Your task to perform on an android device: toggle translation in the chrome app Image 0: 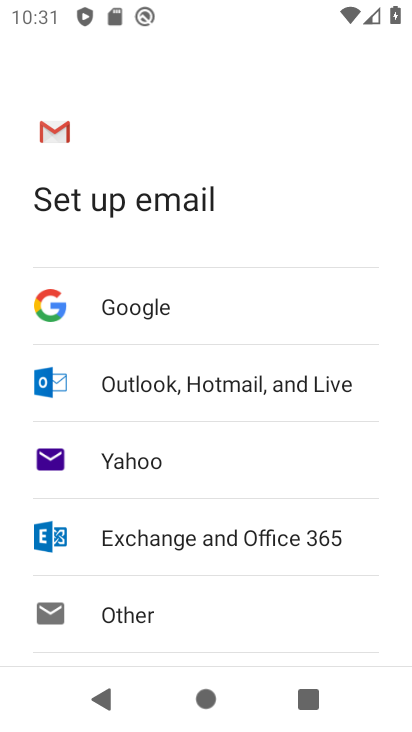
Step 0: press home button
Your task to perform on an android device: toggle translation in the chrome app Image 1: 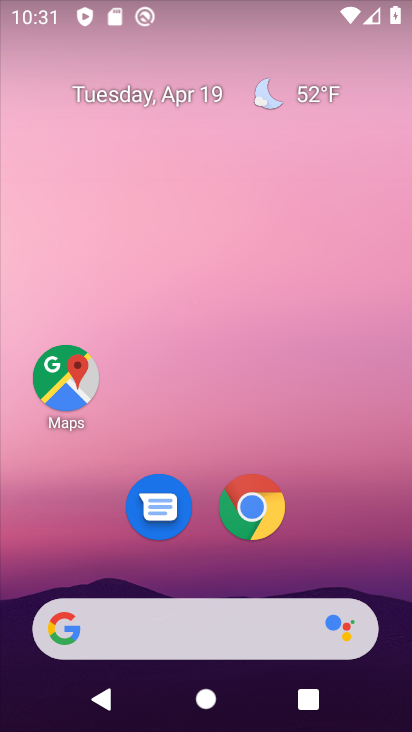
Step 1: drag from (353, 536) to (364, 71)
Your task to perform on an android device: toggle translation in the chrome app Image 2: 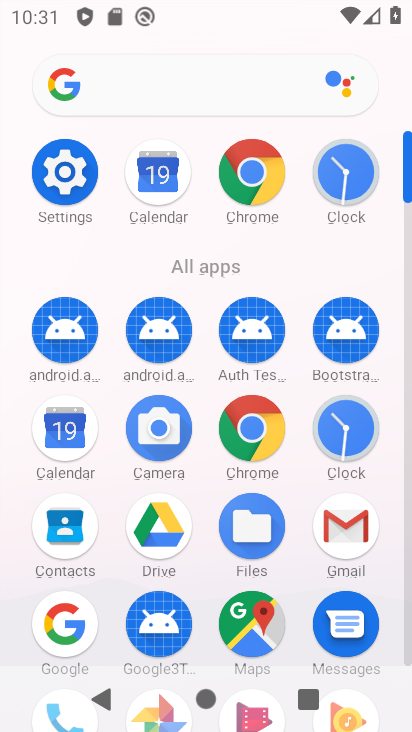
Step 2: click (263, 425)
Your task to perform on an android device: toggle translation in the chrome app Image 3: 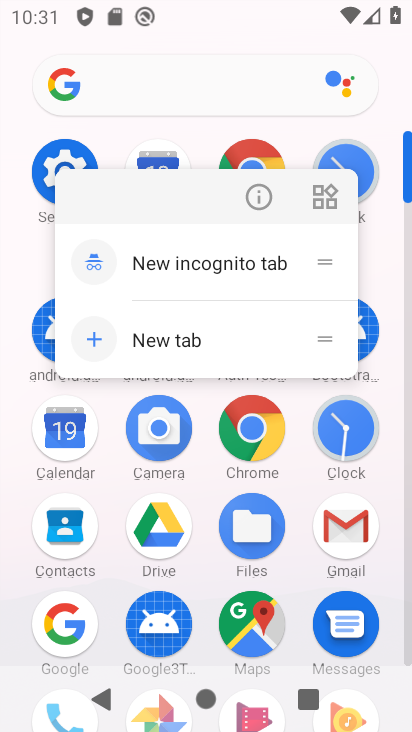
Step 3: click (263, 426)
Your task to perform on an android device: toggle translation in the chrome app Image 4: 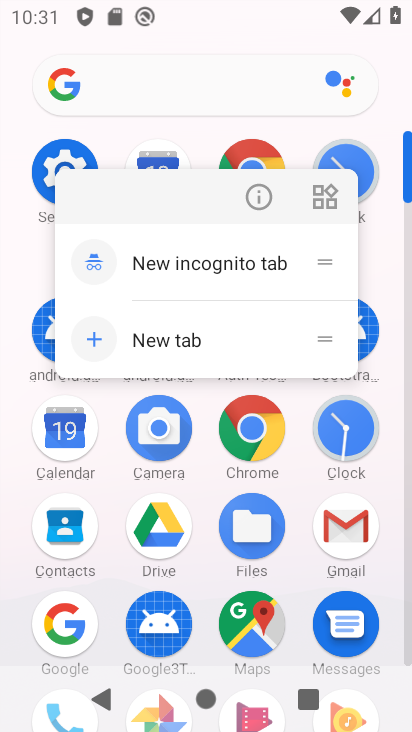
Step 4: click (268, 424)
Your task to perform on an android device: toggle translation in the chrome app Image 5: 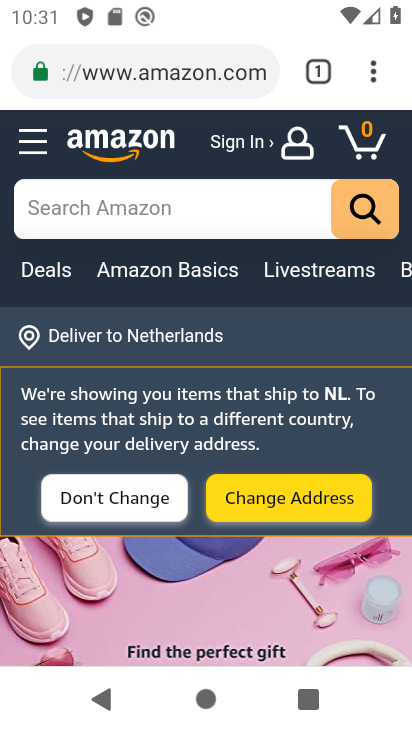
Step 5: click (373, 72)
Your task to perform on an android device: toggle translation in the chrome app Image 6: 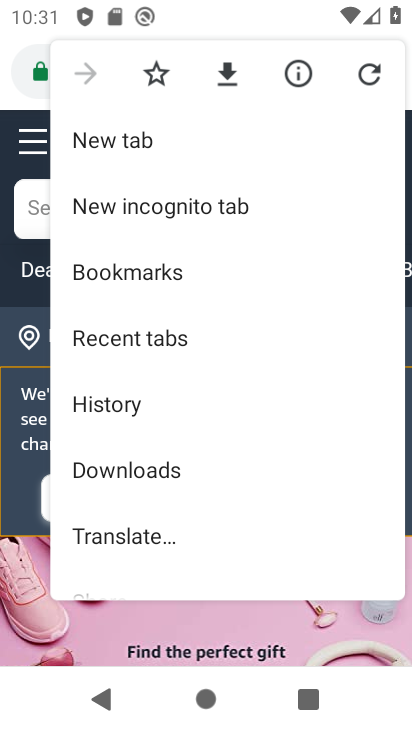
Step 6: drag from (314, 466) to (324, 269)
Your task to perform on an android device: toggle translation in the chrome app Image 7: 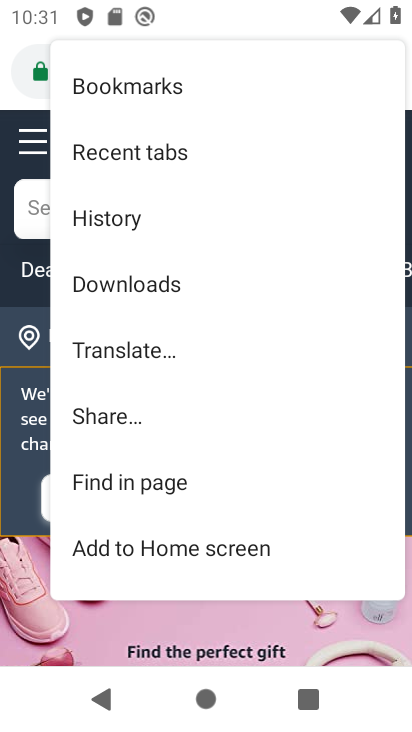
Step 7: drag from (296, 460) to (305, 225)
Your task to perform on an android device: toggle translation in the chrome app Image 8: 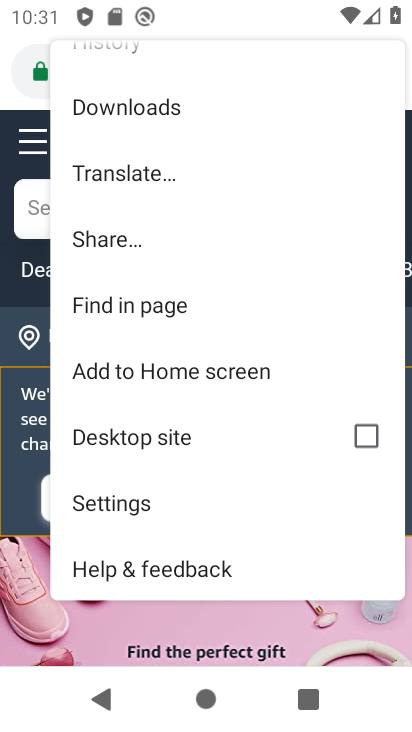
Step 8: click (136, 505)
Your task to perform on an android device: toggle translation in the chrome app Image 9: 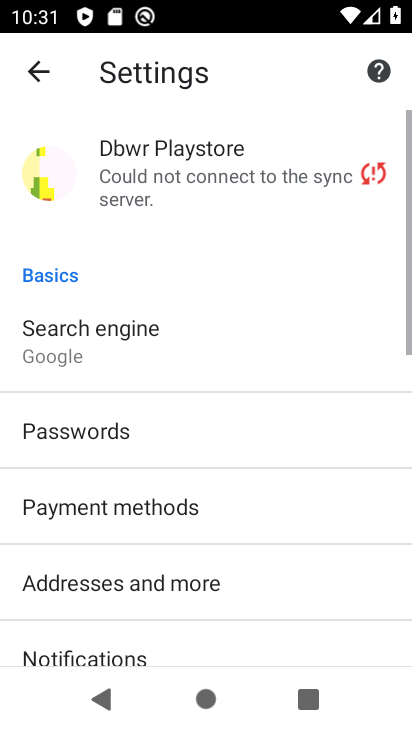
Step 9: drag from (323, 528) to (329, 347)
Your task to perform on an android device: toggle translation in the chrome app Image 10: 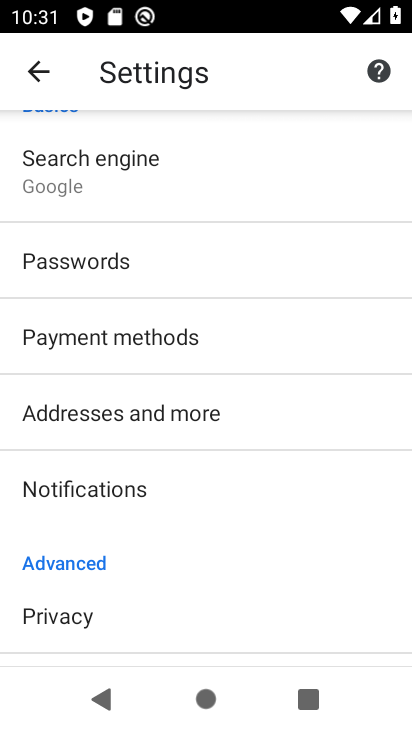
Step 10: drag from (317, 561) to (327, 373)
Your task to perform on an android device: toggle translation in the chrome app Image 11: 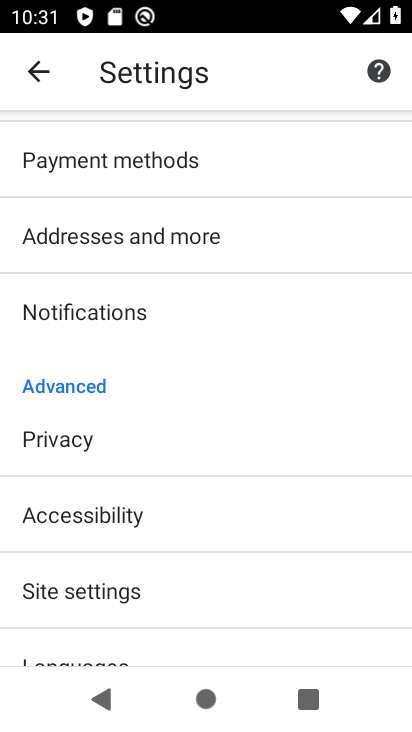
Step 11: drag from (304, 563) to (313, 351)
Your task to perform on an android device: toggle translation in the chrome app Image 12: 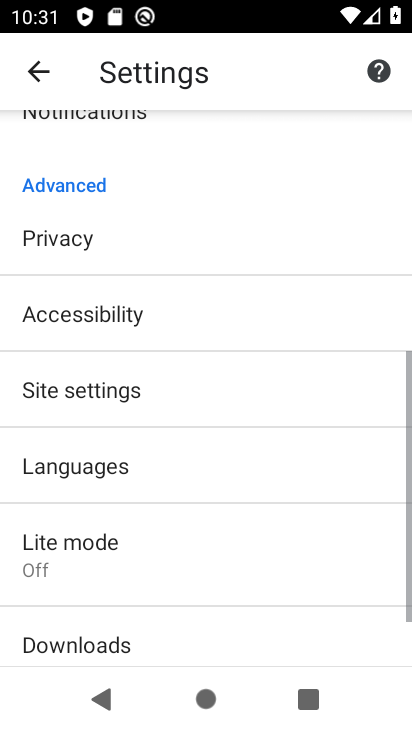
Step 12: click (263, 473)
Your task to perform on an android device: toggle translation in the chrome app Image 13: 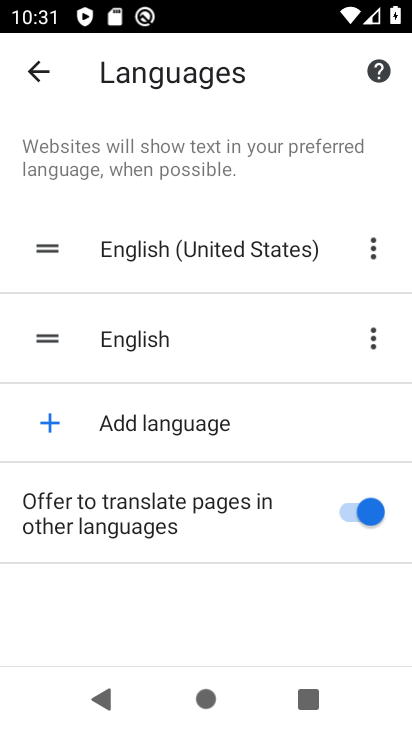
Step 13: click (351, 498)
Your task to perform on an android device: toggle translation in the chrome app Image 14: 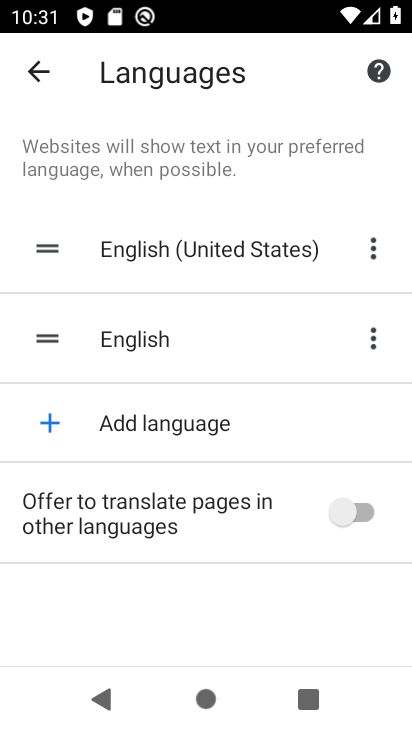
Step 14: task complete